Your task to perform on an android device: turn smart compose on in the gmail app Image 0: 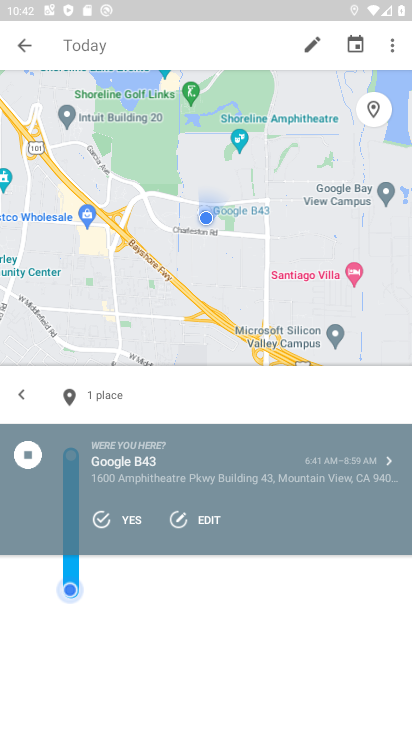
Step 0: press home button
Your task to perform on an android device: turn smart compose on in the gmail app Image 1: 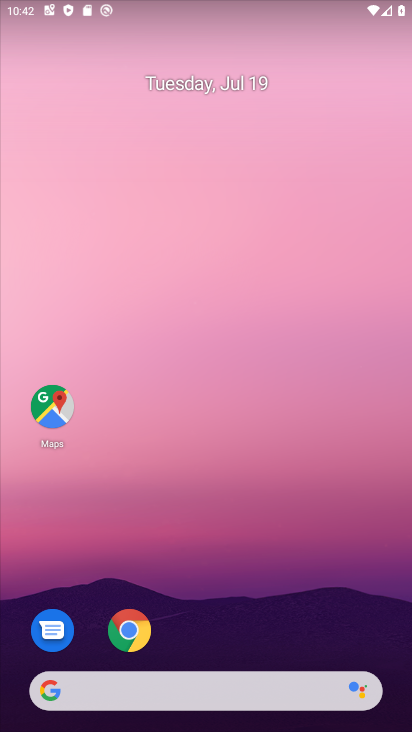
Step 1: drag from (14, 659) to (327, 17)
Your task to perform on an android device: turn smart compose on in the gmail app Image 2: 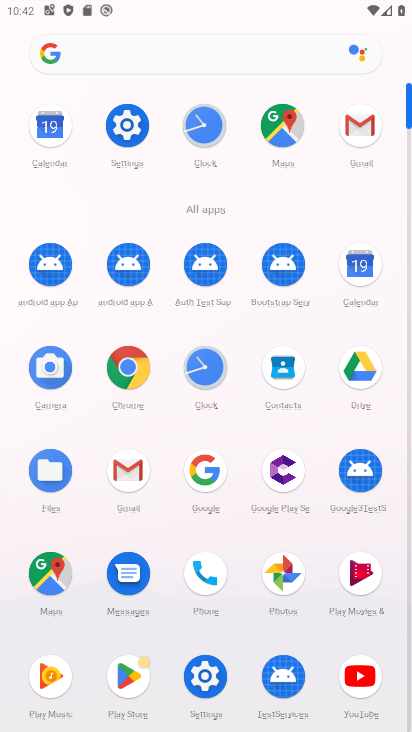
Step 2: click (346, 123)
Your task to perform on an android device: turn smart compose on in the gmail app Image 3: 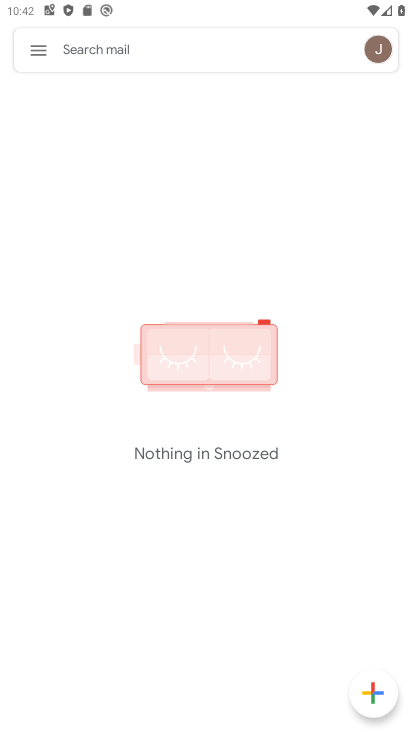
Step 3: click (37, 56)
Your task to perform on an android device: turn smart compose on in the gmail app Image 4: 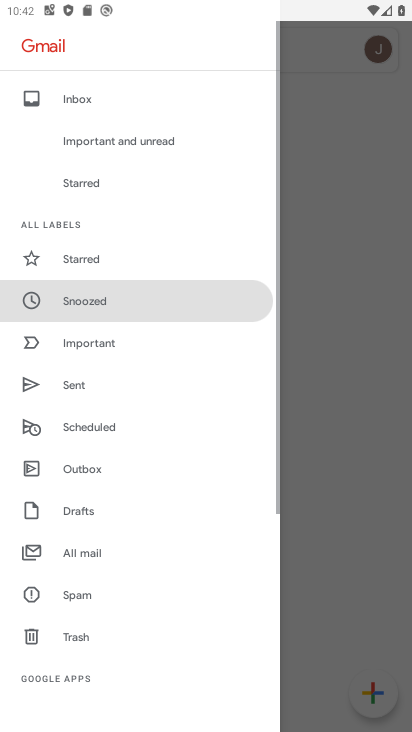
Step 4: drag from (78, 682) to (233, 42)
Your task to perform on an android device: turn smart compose on in the gmail app Image 5: 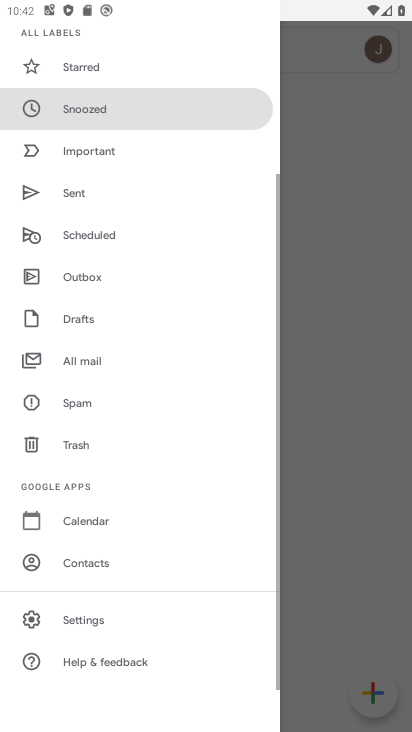
Step 5: click (60, 625)
Your task to perform on an android device: turn smart compose on in the gmail app Image 6: 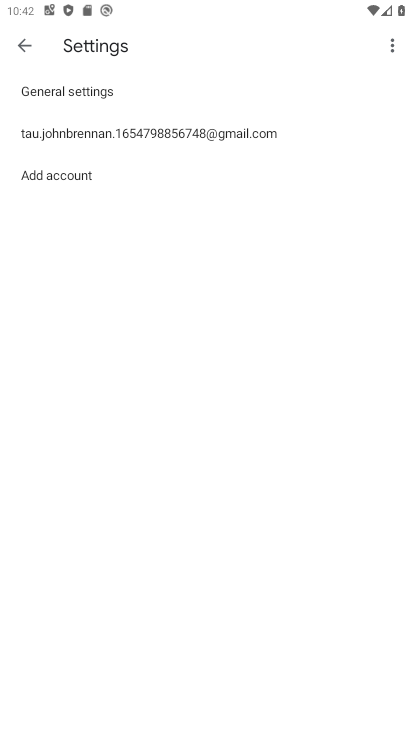
Step 6: click (58, 139)
Your task to perform on an android device: turn smart compose on in the gmail app Image 7: 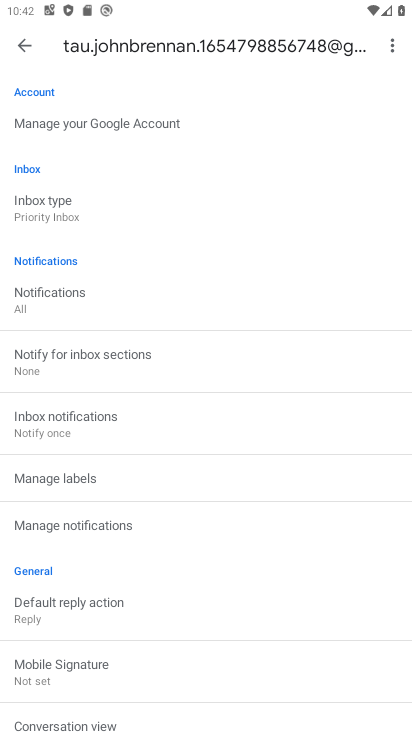
Step 7: task complete